Your task to perform on an android device: turn off notifications settings in the gmail app Image 0: 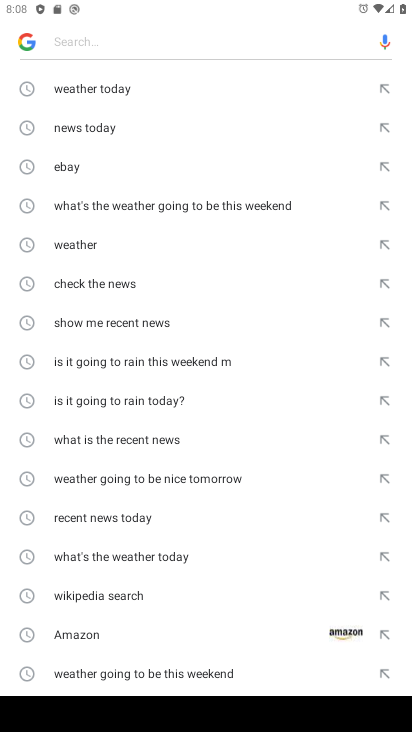
Step 0: press home button
Your task to perform on an android device: turn off notifications settings in the gmail app Image 1: 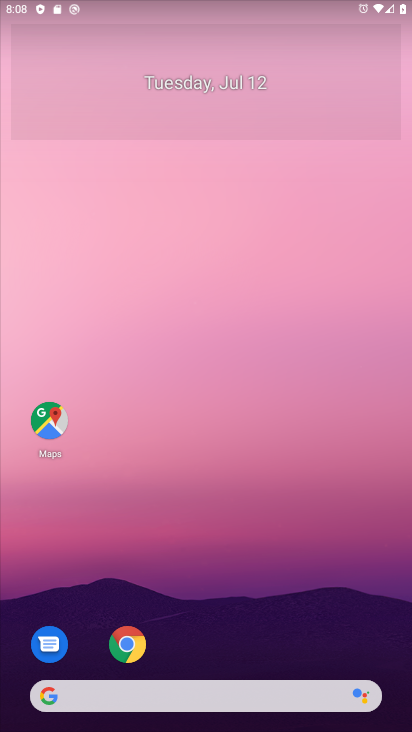
Step 1: drag from (15, 718) to (244, 25)
Your task to perform on an android device: turn off notifications settings in the gmail app Image 2: 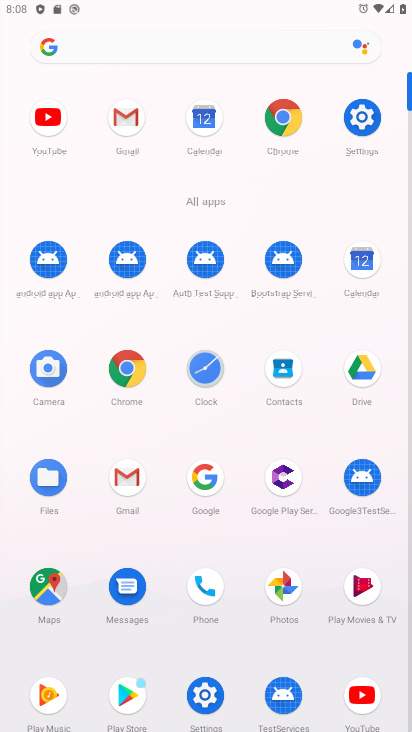
Step 2: click (133, 485)
Your task to perform on an android device: turn off notifications settings in the gmail app Image 3: 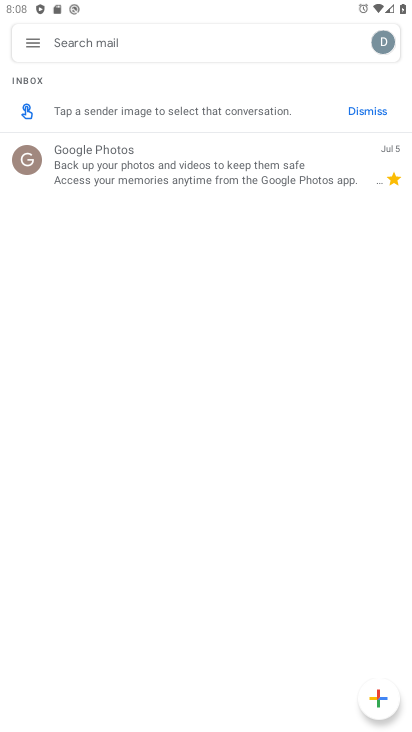
Step 3: click (31, 45)
Your task to perform on an android device: turn off notifications settings in the gmail app Image 4: 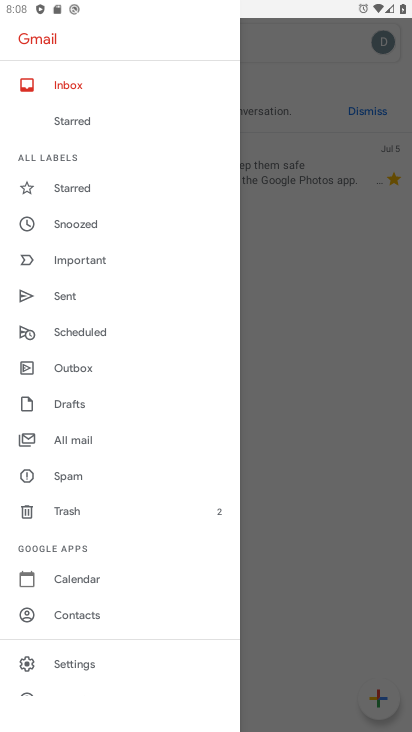
Step 4: click (83, 661)
Your task to perform on an android device: turn off notifications settings in the gmail app Image 5: 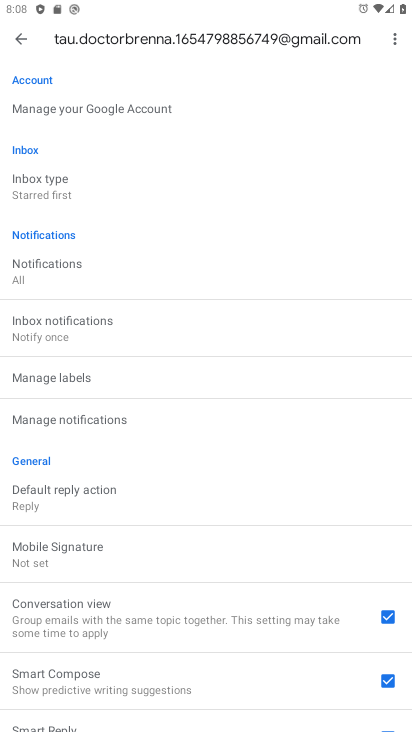
Step 5: click (46, 263)
Your task to perform on an android device: turn off notifications settings in the gmail app Image 6: 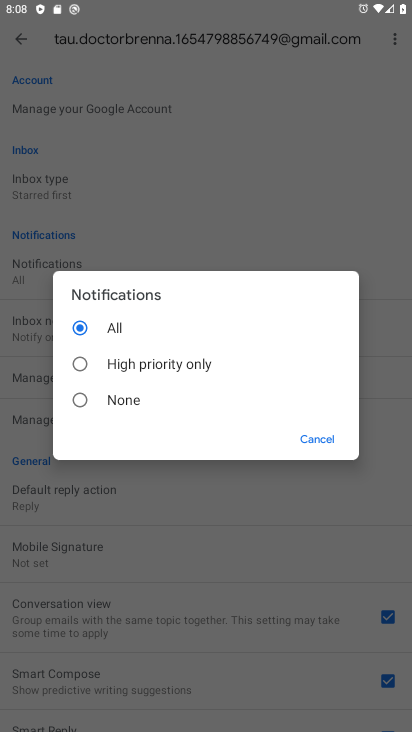
Step 6: click (75, 385)
Your task to perform on an android device: turn off notifications settings in the gmail app Image 7: 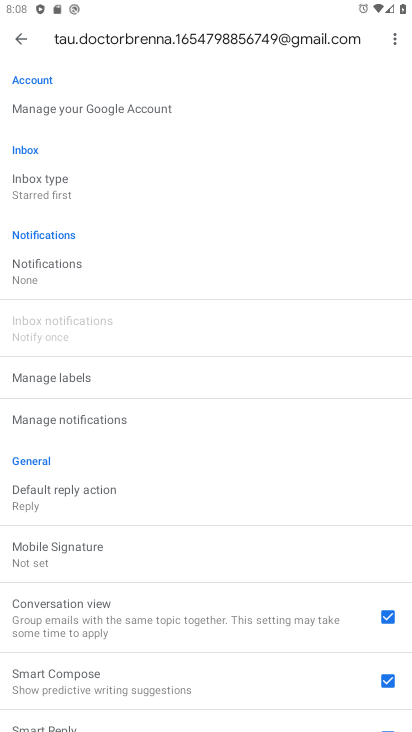
Step 7: task complete